Your task to perform on an android device: Open the stopwatch Image 0: 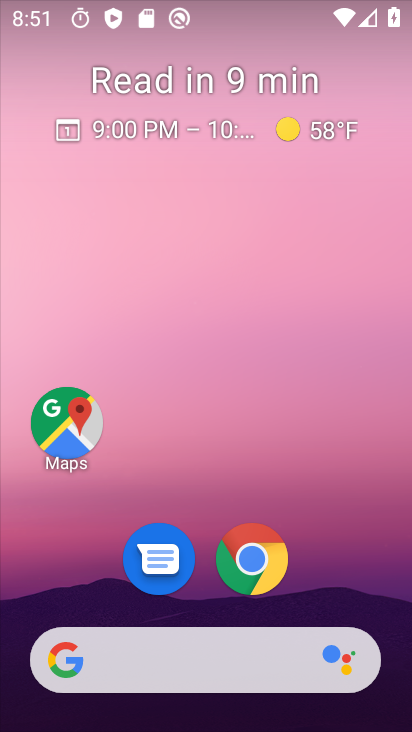
Step 0: drag from (315, 590) to (205, 137)
Your task to perform on an android device: Open the stopwatch Image 1: 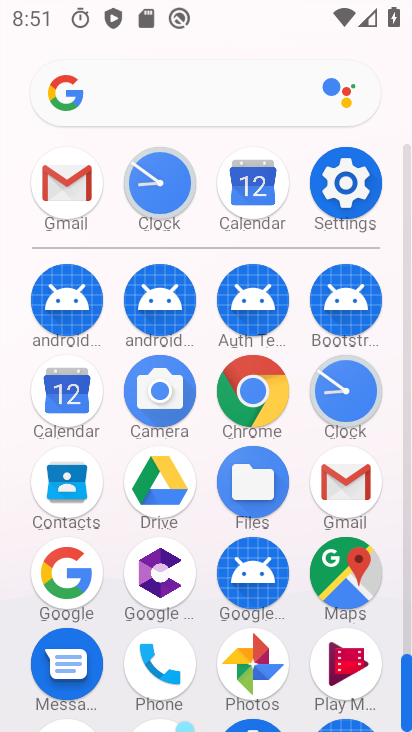
Step 1: click (346, 392)
Your task to perform on an android device: Open the stopwatch Image 2: 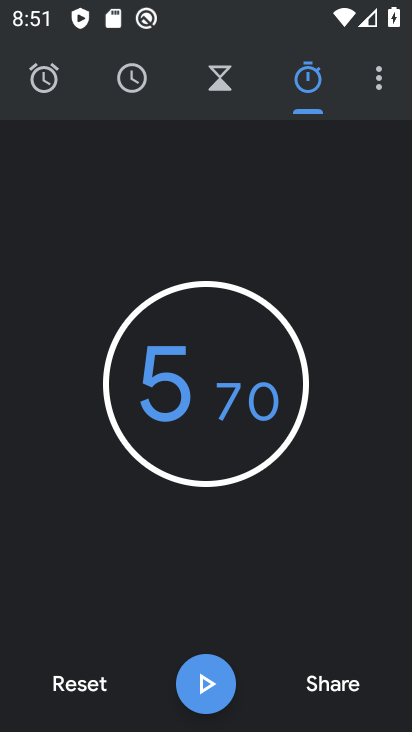
Step 2: task complete